Your task to perform on an android device: Go to Yahoo.com Image 0: 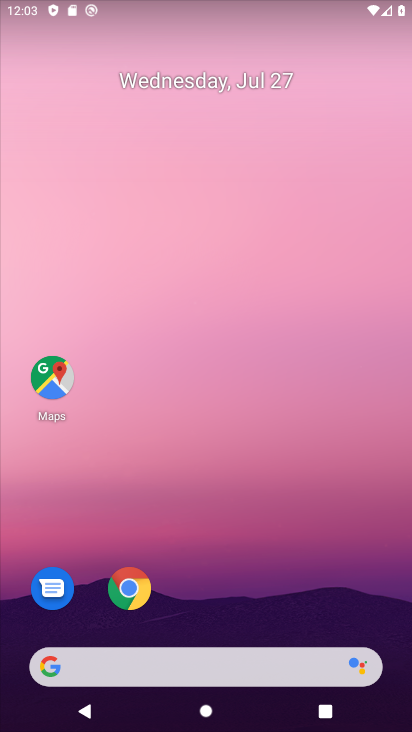
Step 0: click (133, 602)
Your task to perform on an android device: Go to Yahoo.com Image 1: 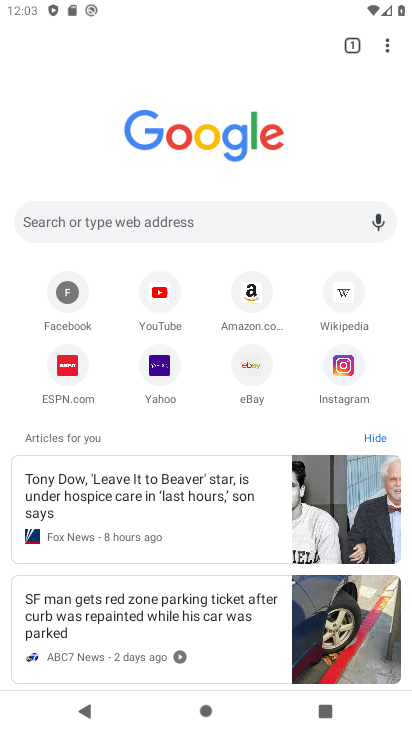
Step 1: click (157, 372)
Your task to perform on an android device: Go to Yahoo.com Image 2: 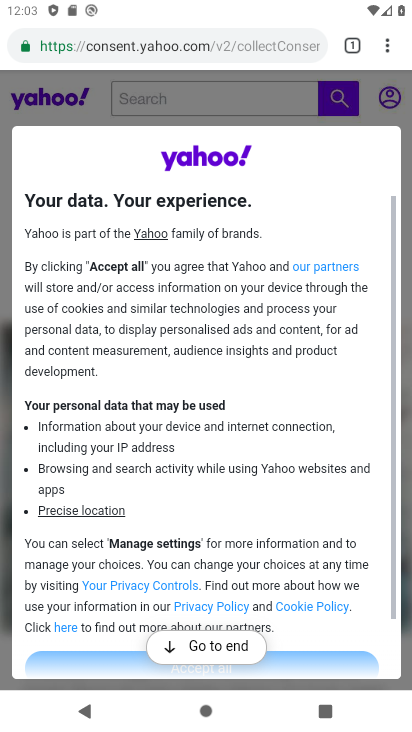
Step 2: task complete